Your task to perform on an android device: Open Youtube and go to the subscriptions tab Image 0: 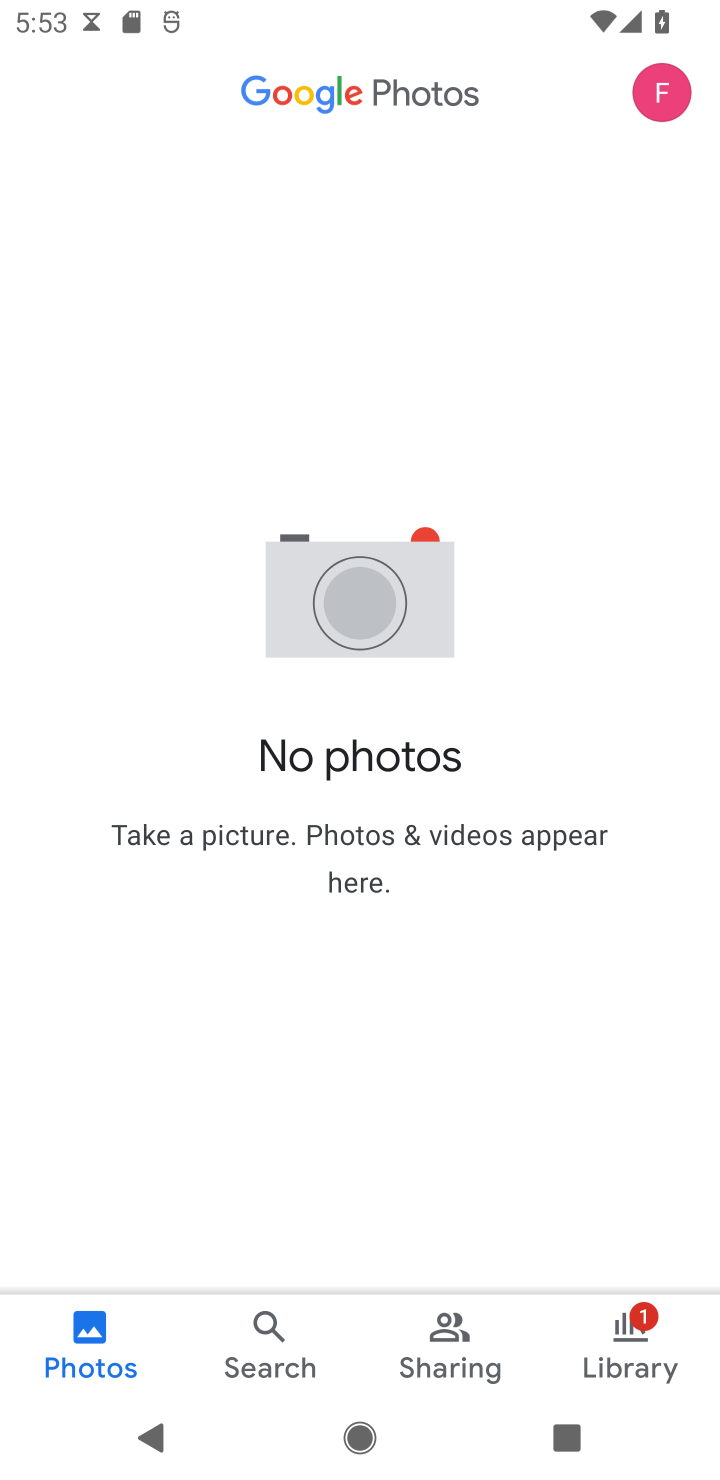
Step 0: press home button
Your task to perform on an android device: Open Youtube and go to the subscriptions tab Image 1: 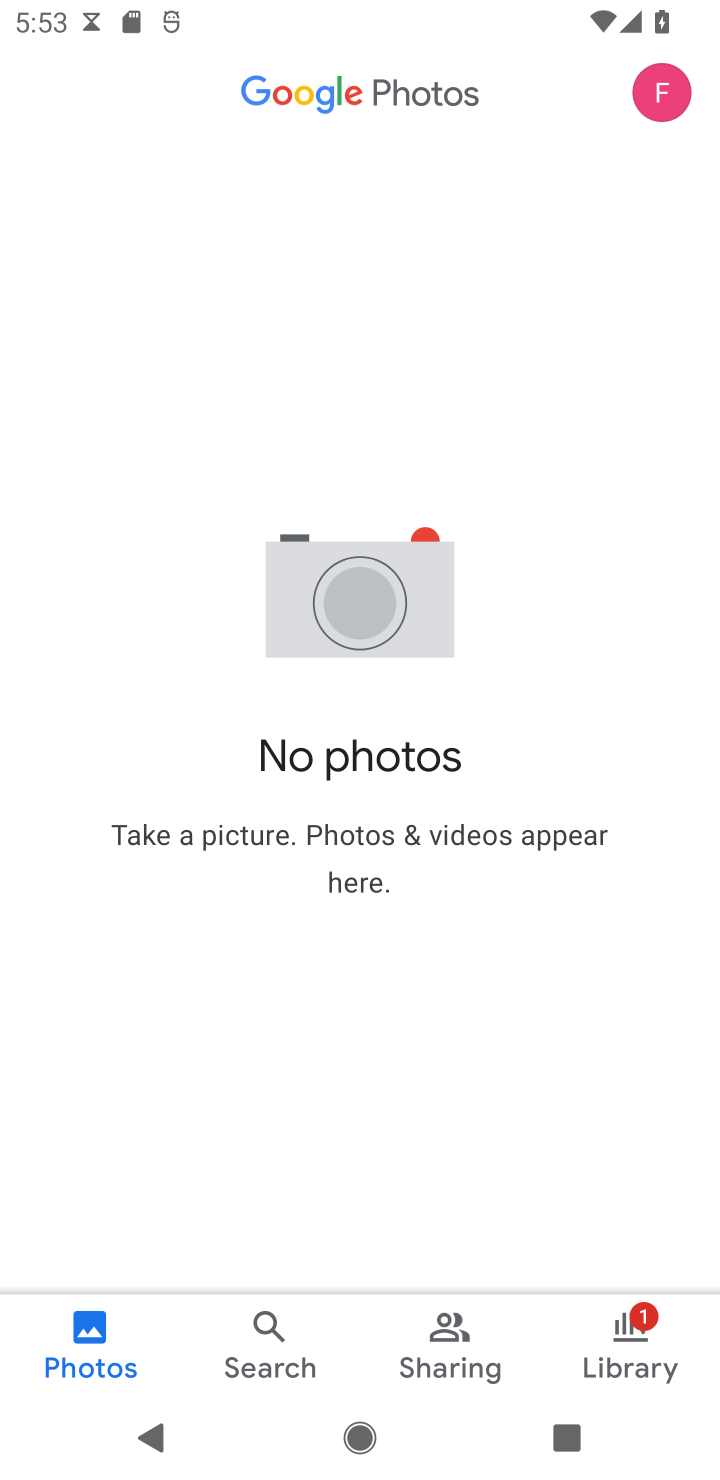
Step 1: press home button
Your task to perform on an android device: Open Youtube and go to the subscriptions tab Image 2: 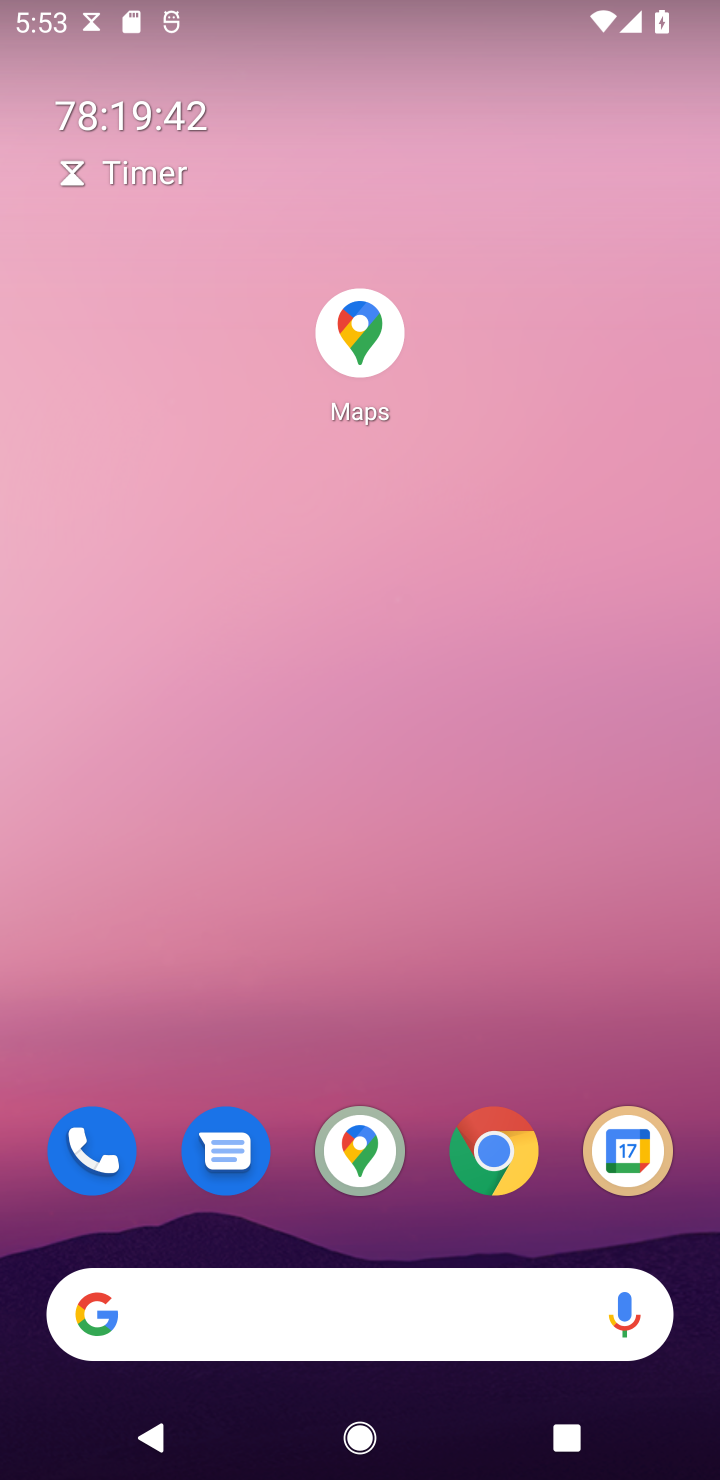
Step 2: drag from (384, 1251) to (363, 1105)
Your task to perform on an android device: Open Youtube and go to the subscriptions tab Image 3: 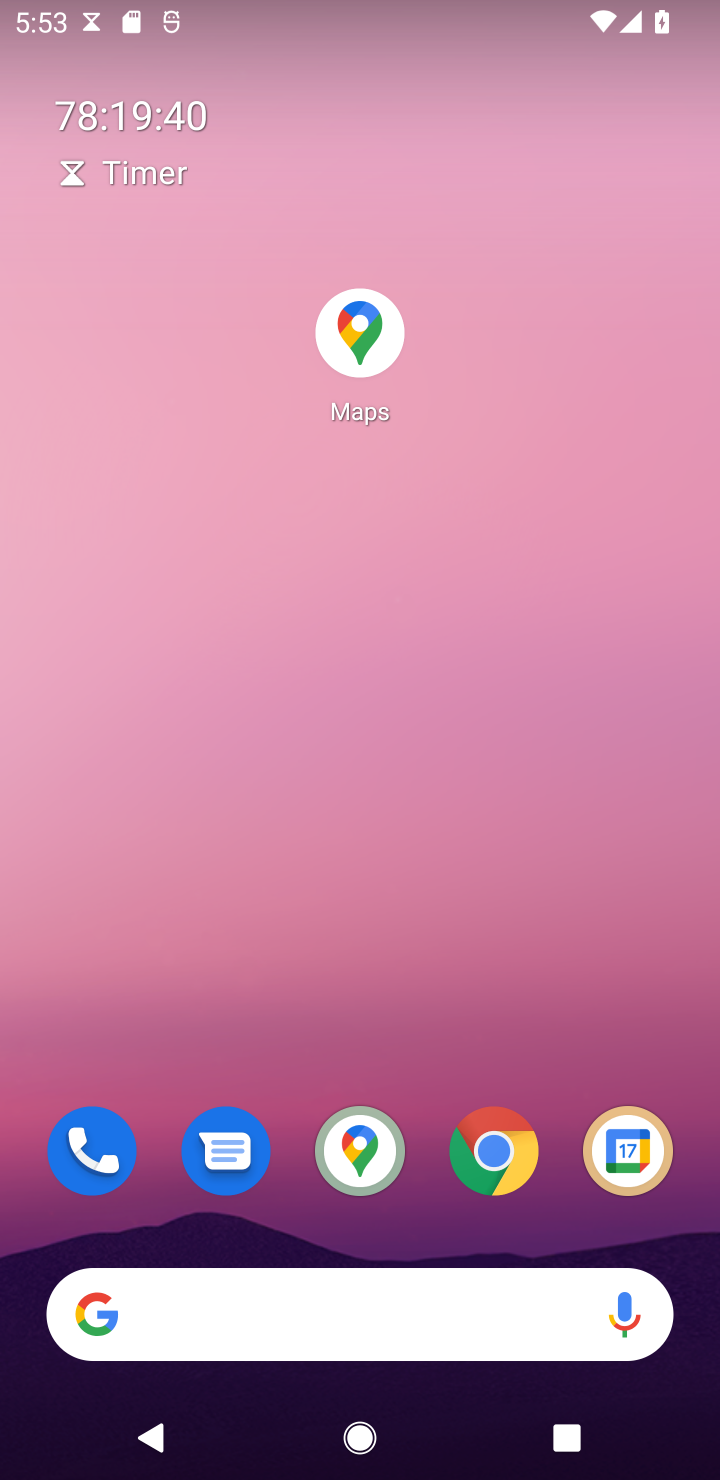
Step 3: drag from (276, 1319) to (342, 653)
Your task to perform on an android device: Open Youtube and go to the subscriptions tab Image 4: 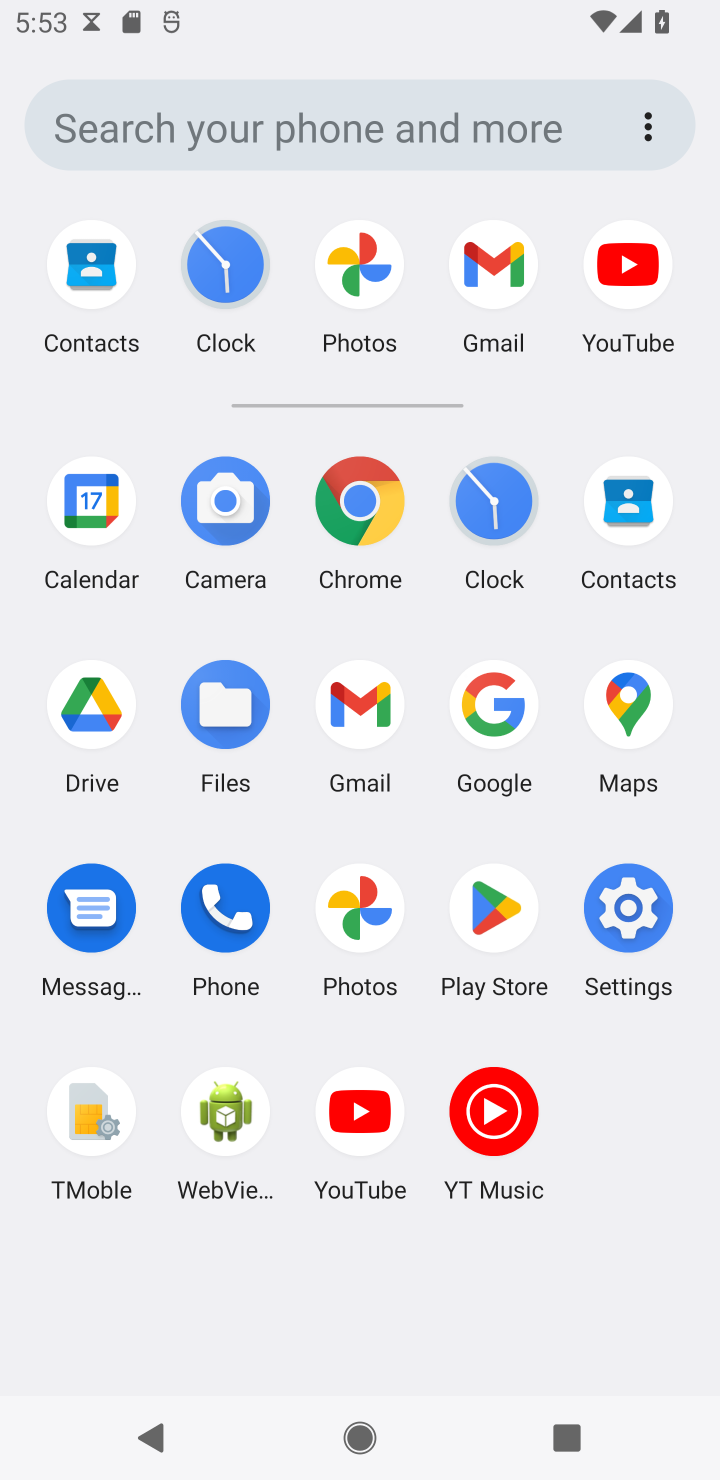
Step 4: click (366, 1123)
Your task to perform on an android device: Open Youtube and go to the subscriptions tab Image 5: 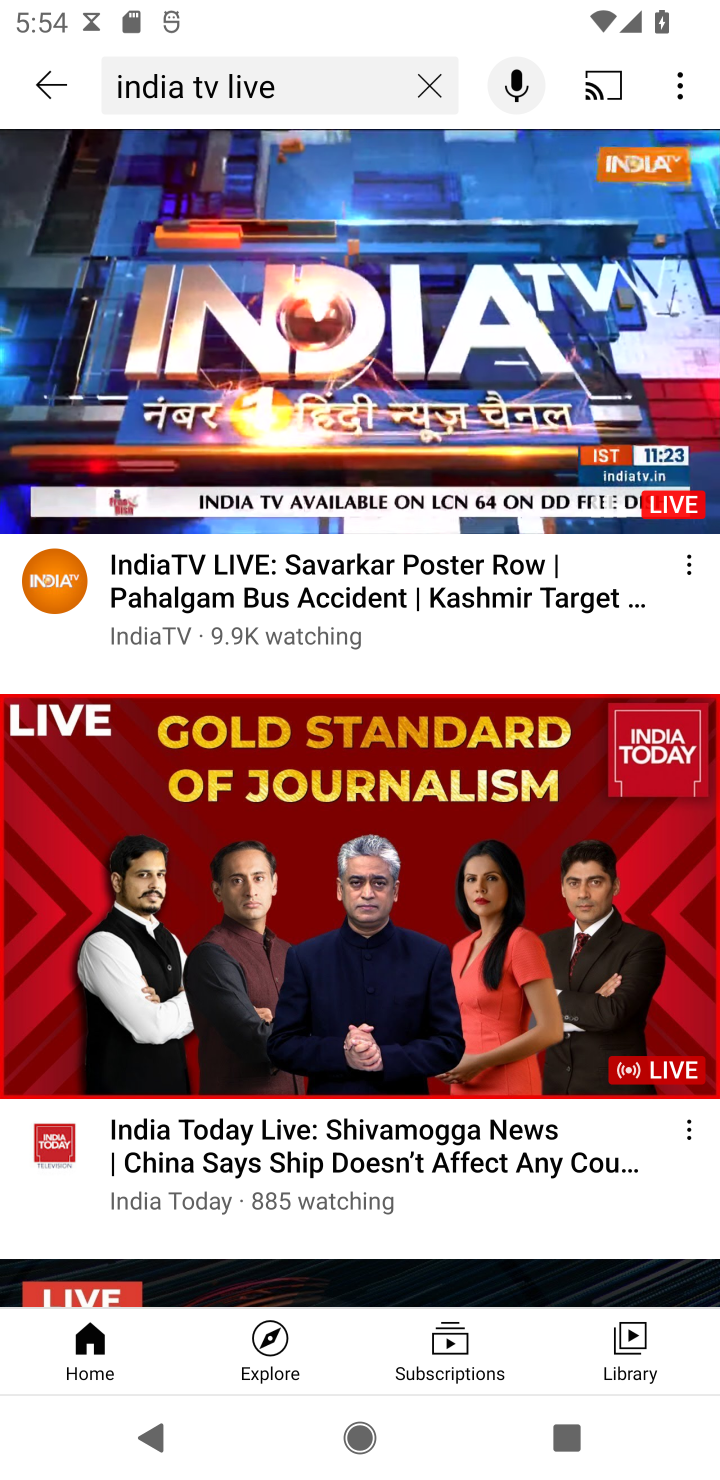
Step 5: click (461, 1370)
Your task to perform on an android device: Open Youtube and go to the subscriptions tab Image 6: 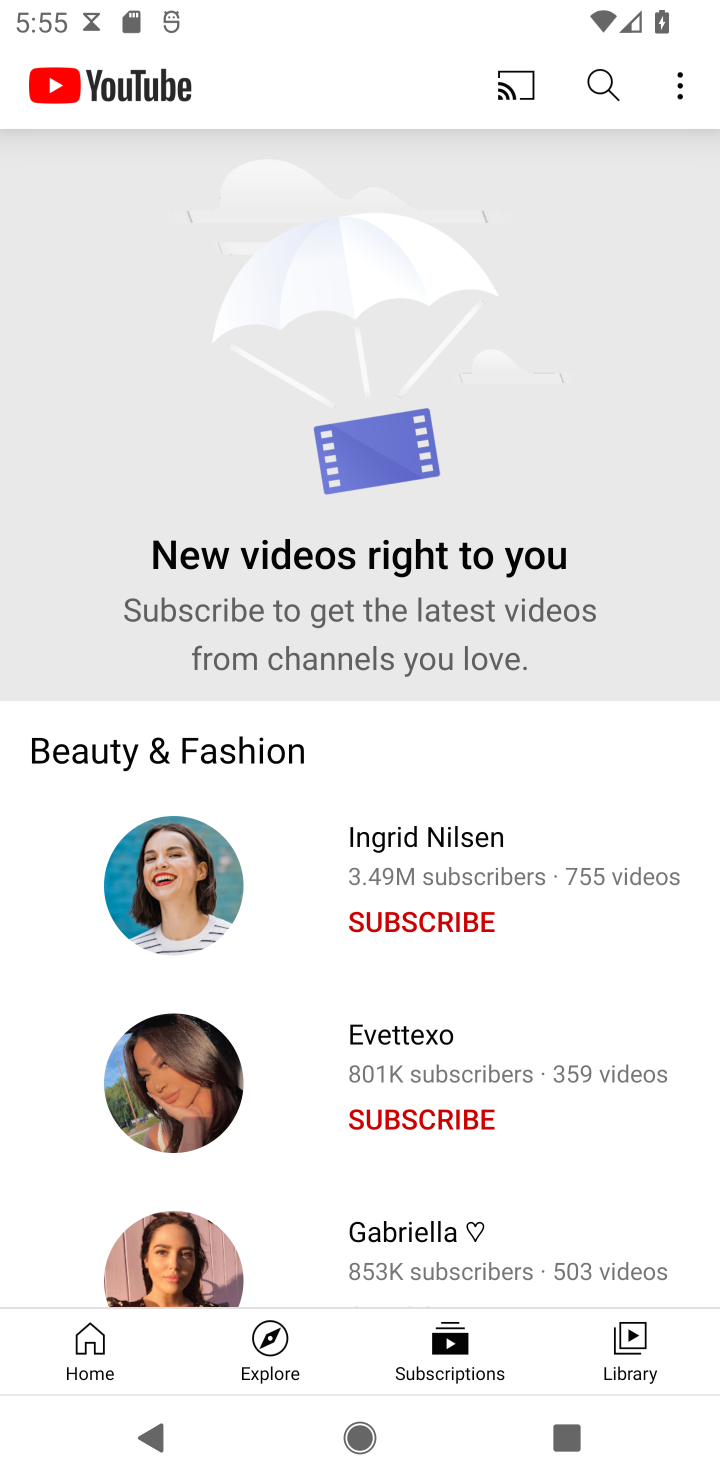
Step 6: task complete